Your task to perform on an android device: turn off translation in the chrome app Image 0: 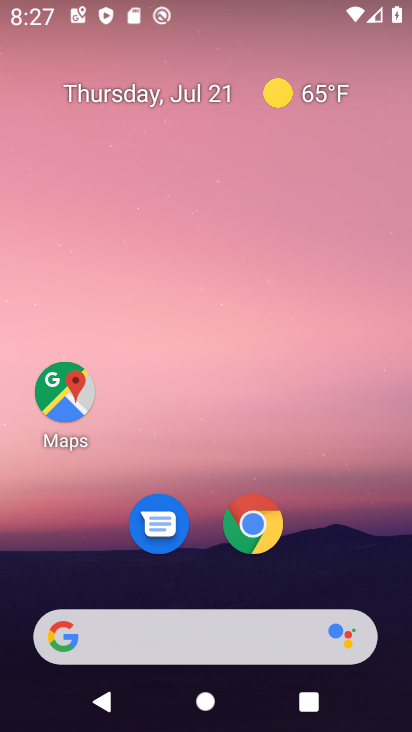
Step 0: drag from (195, 638) to (193, 68)
Your task to perform on an android device: turn off translation in the chrome app Image 1: 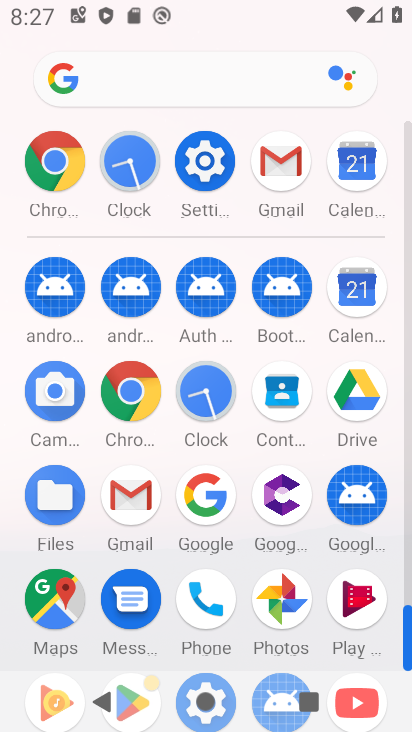
Step 1: click (46, 144)
Your task to perform on an android device: turn off translation in the chrome app Image 2: 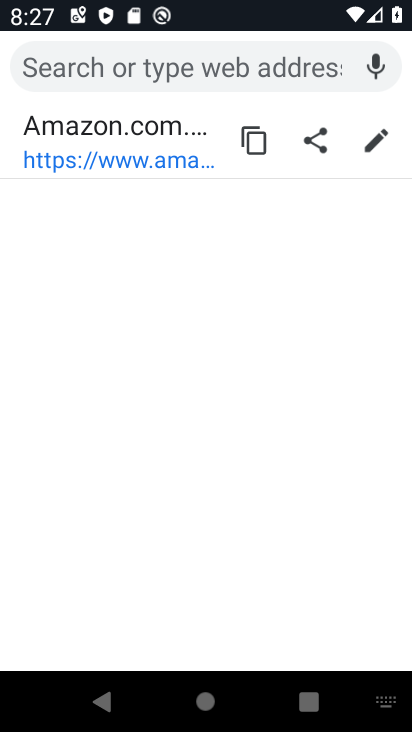
Step 2: press back button
Your task to perform on an android device: turn off translation in the chrome app Image 3: 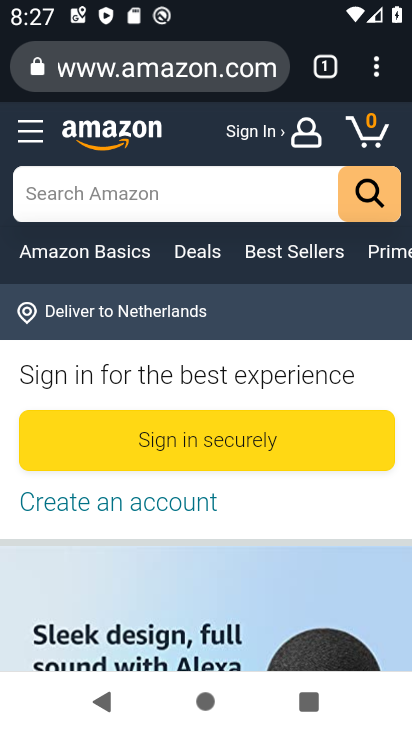
Step 3: drag from (385, 69) to (183, 527)
Your task to perform on an android device: turn off translation in the chrome app Image 4: 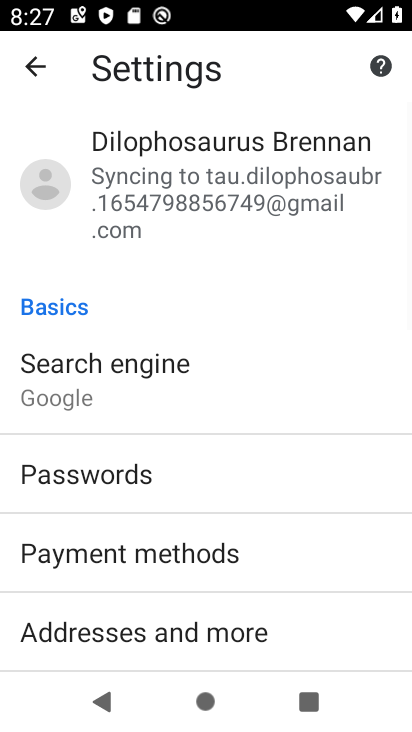
Step 4: drag from (144, 584) to (181, 247)
Your task to perform on an android device: turn off translation in the chrome app Image 5: 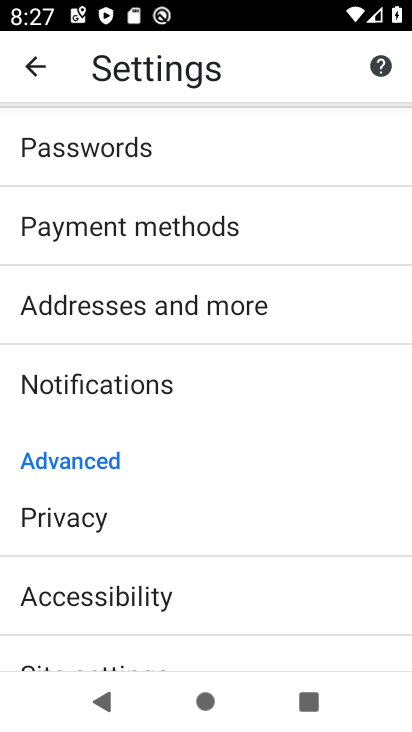
Step 5: drag from (127, 634) to (133, 301)
Your task to perform on an android device: turn off translation in the chrome app Image 6: 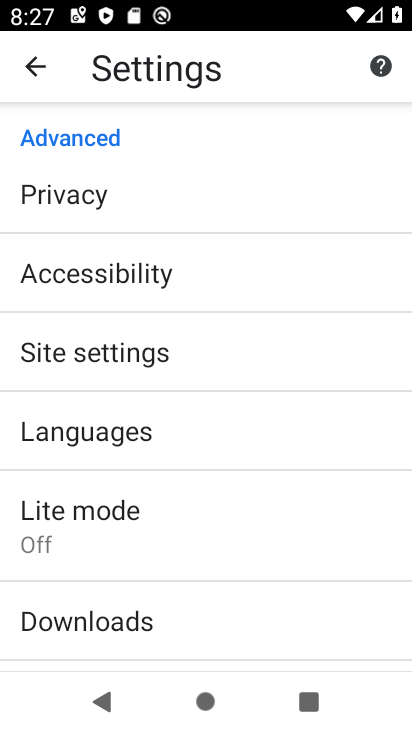
Step 6: click (107, 457)
Your task to perform on an android device: turn off translation in the chrome app Image 7: 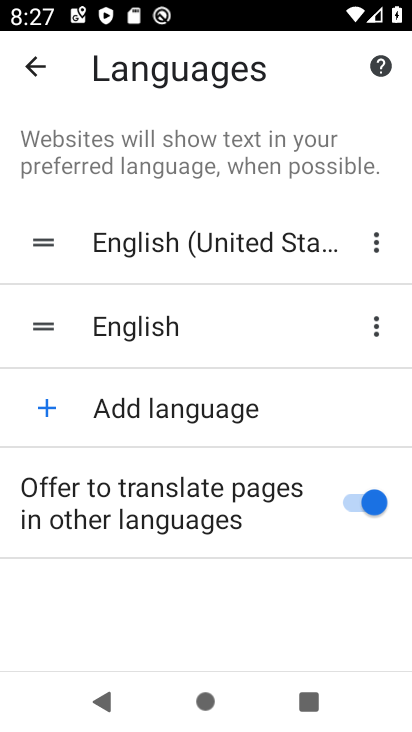
Step 7: click (357, 502)
Your task to perform on an android device: turn off translation in the chrome app Image 8: 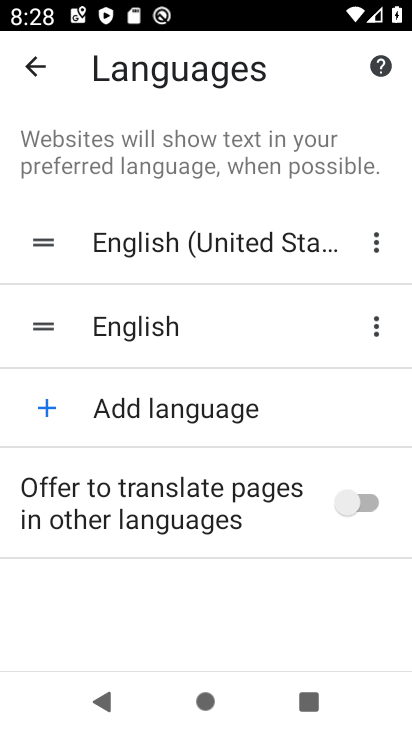
Step 8: task complete